Your task to perform on an android device: install app "Upside-Cash back on gas & food" Image 0: 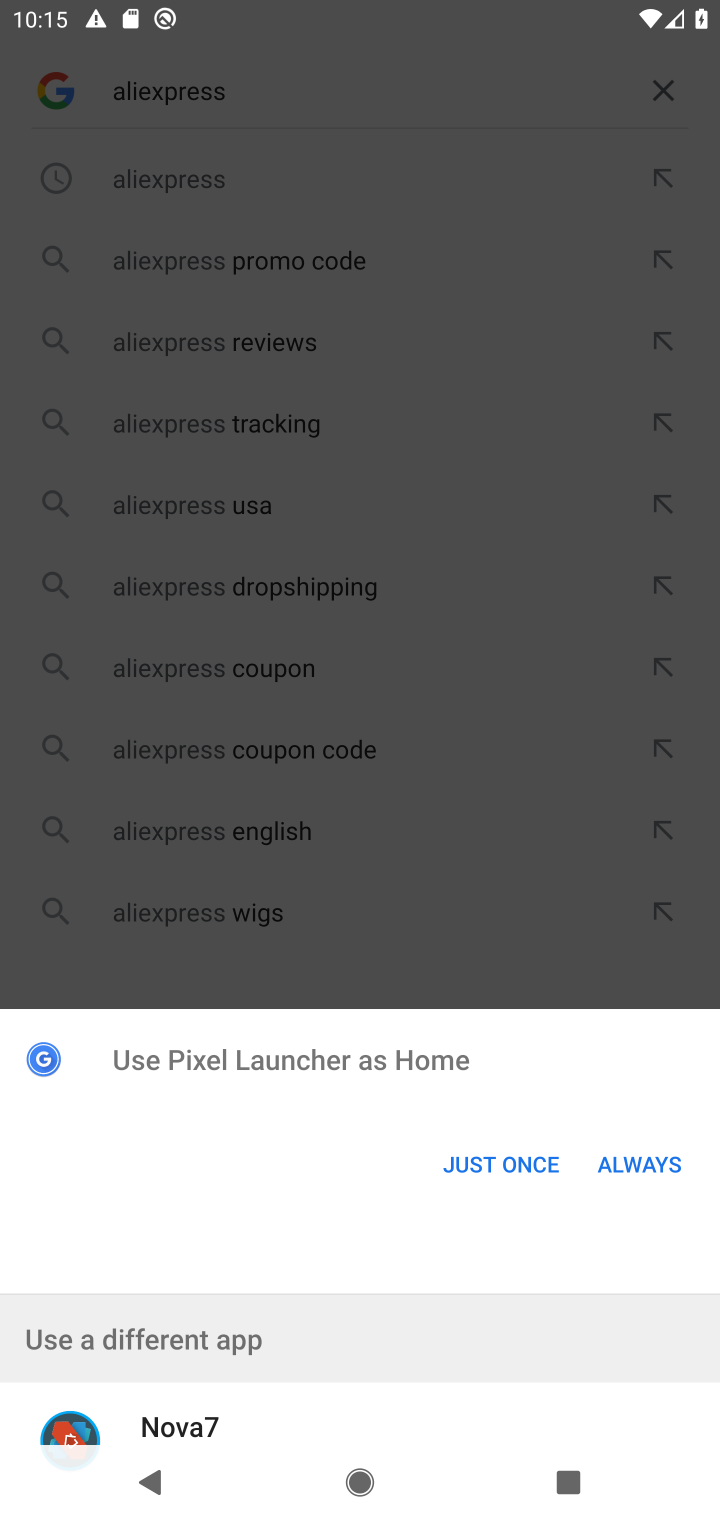
Step 0: click (476, 1180)
Your task to perform on an android device: install app "Upside-Cash back on gas & food" Image 1: 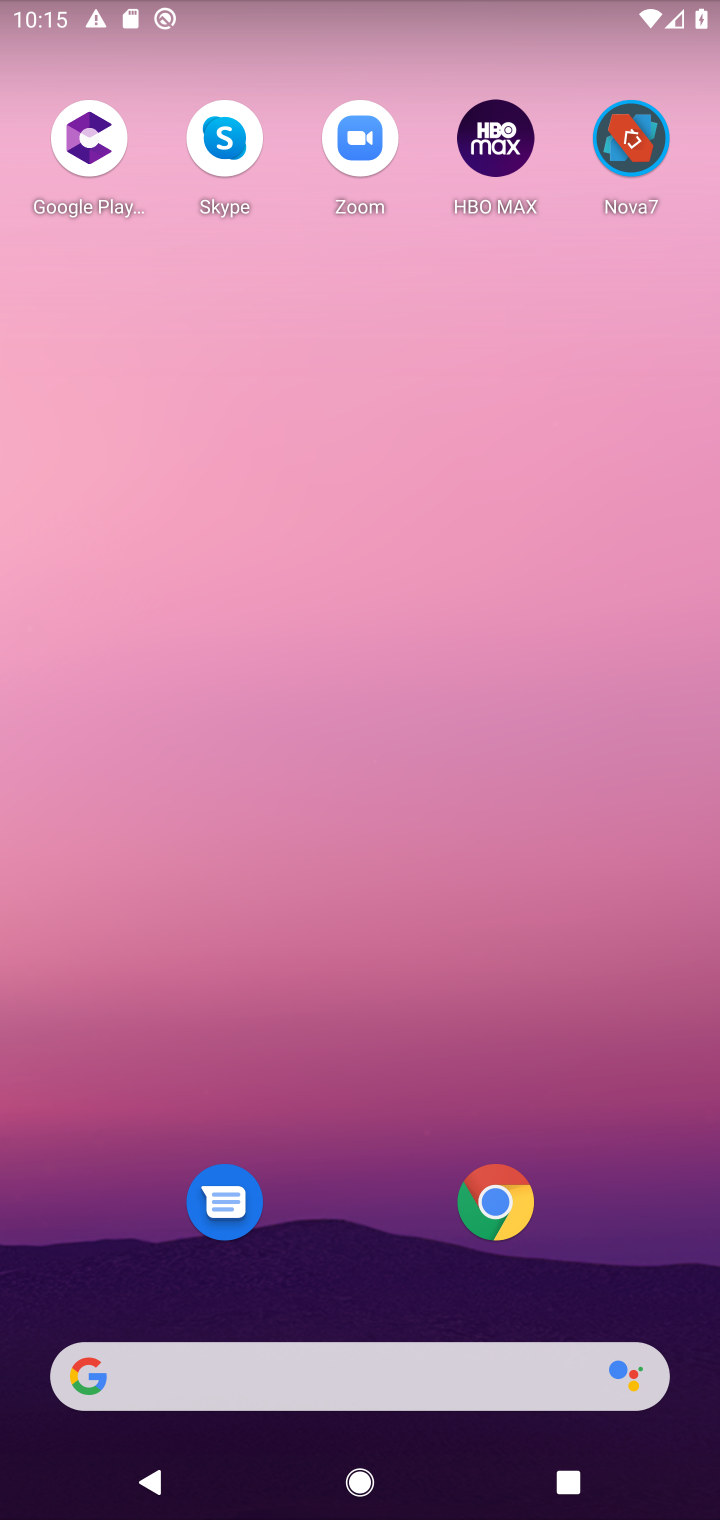
Step 1: click (427, 1392)
Your task to perform on an android device: install app "Upside-Cash back on gas & food" Image 2: 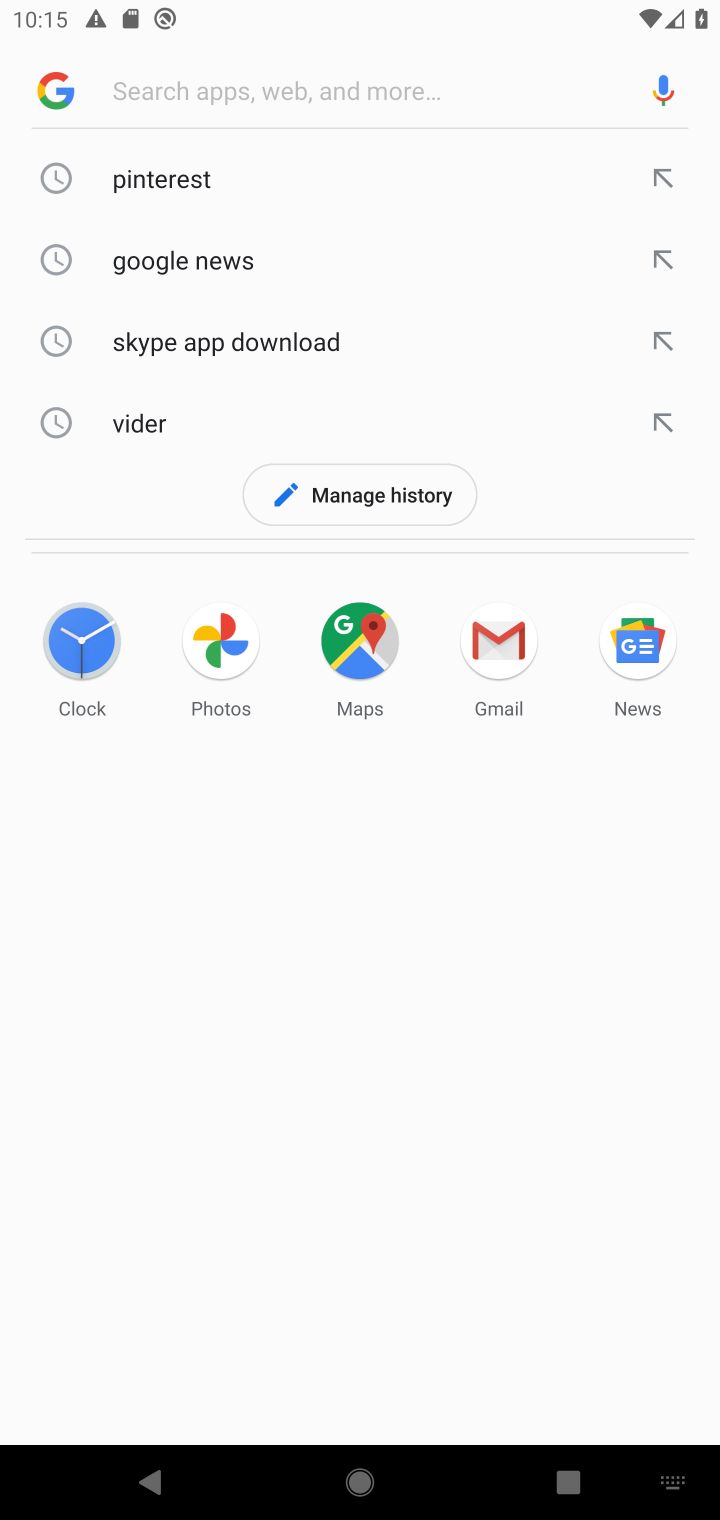
Step 2: type "upside cash"
Your task to perform on an android device: install app "Upside-Cash back on gas & food" Image 3: 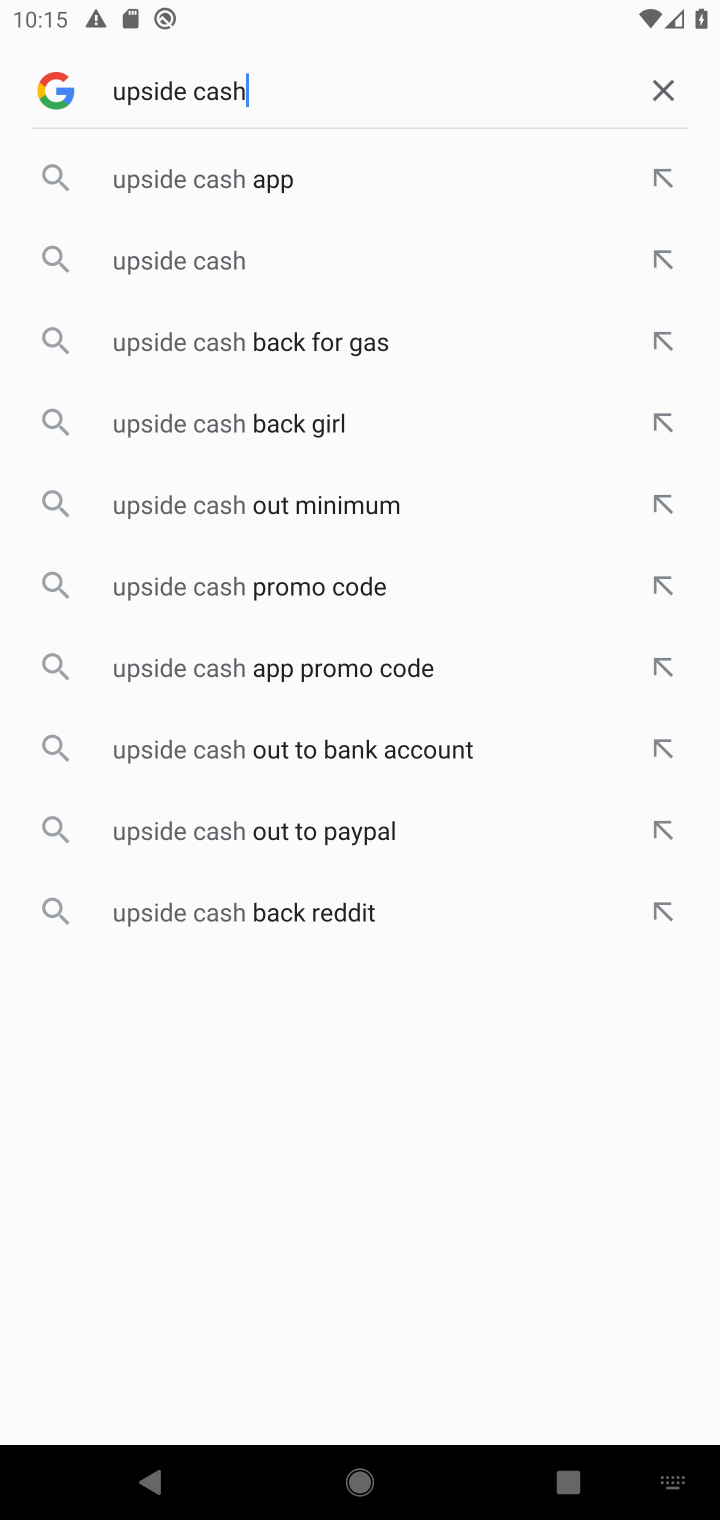
Step 3: click (257, 186)
Your task to perform on an android device: install app "Upside-Cash back on gas & food" Image 4: 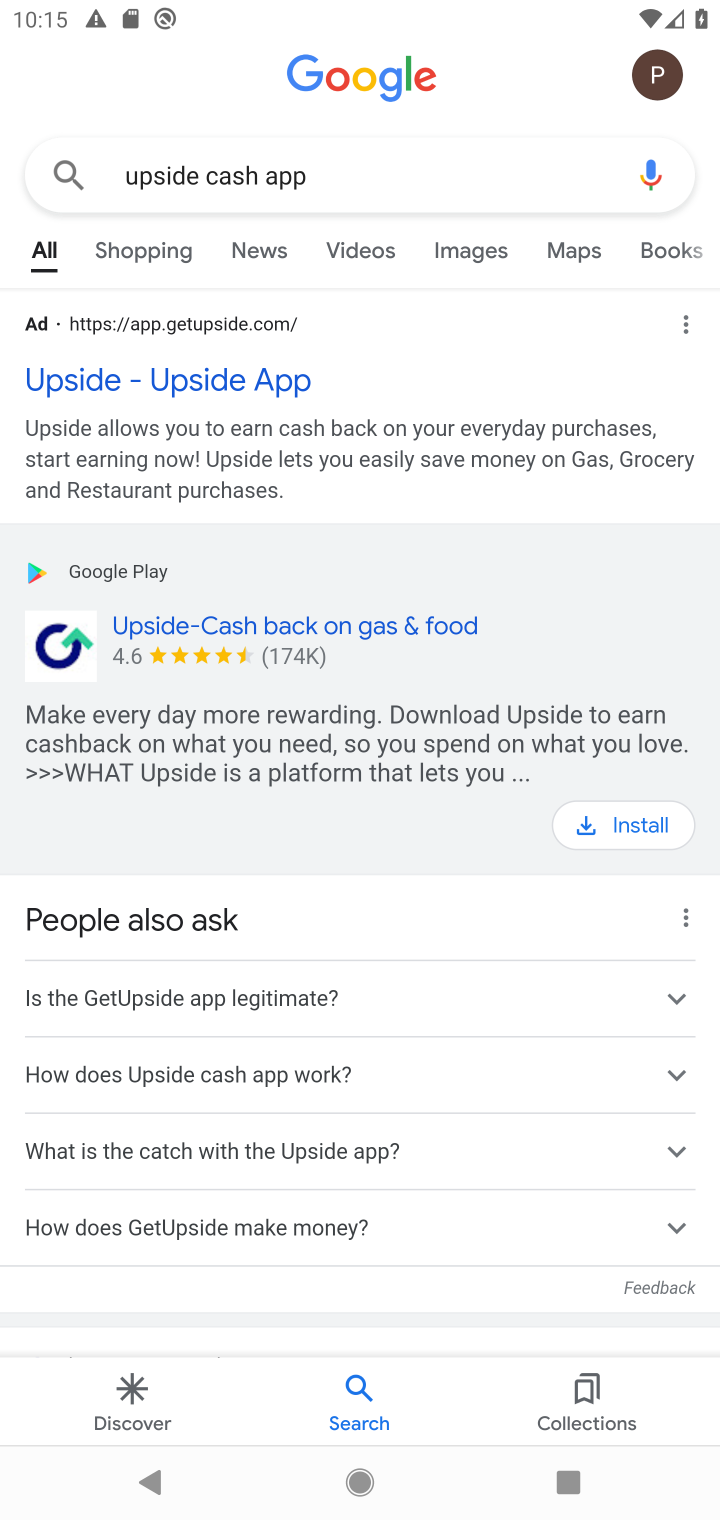
Step 4: click (643, 801)
Your task to perform on an android device: install app "Upside-Cash back on gas & food" Image 5: 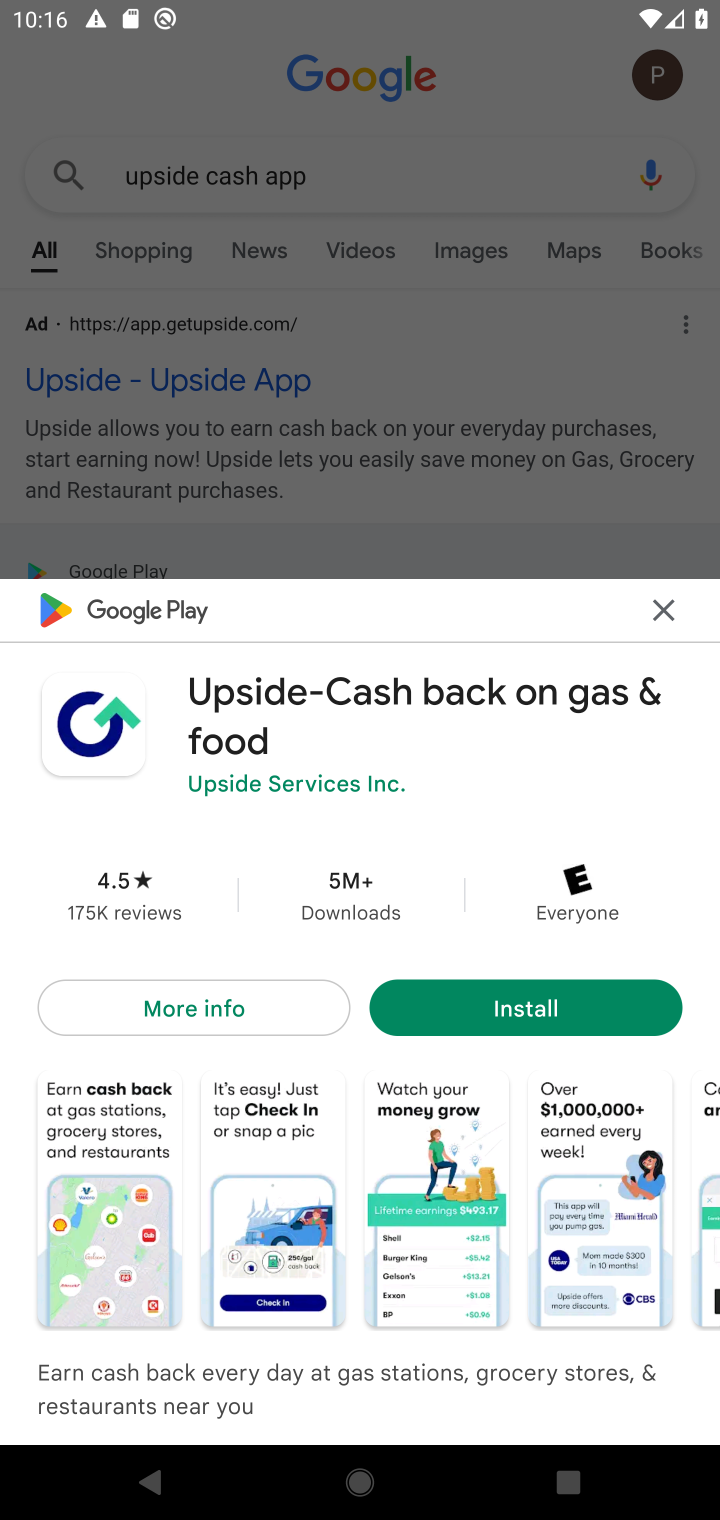
Step 5: click (508, 1015)
Your task to perform on an android device: install app "Upside-Cash back on gas & food" Image 6: 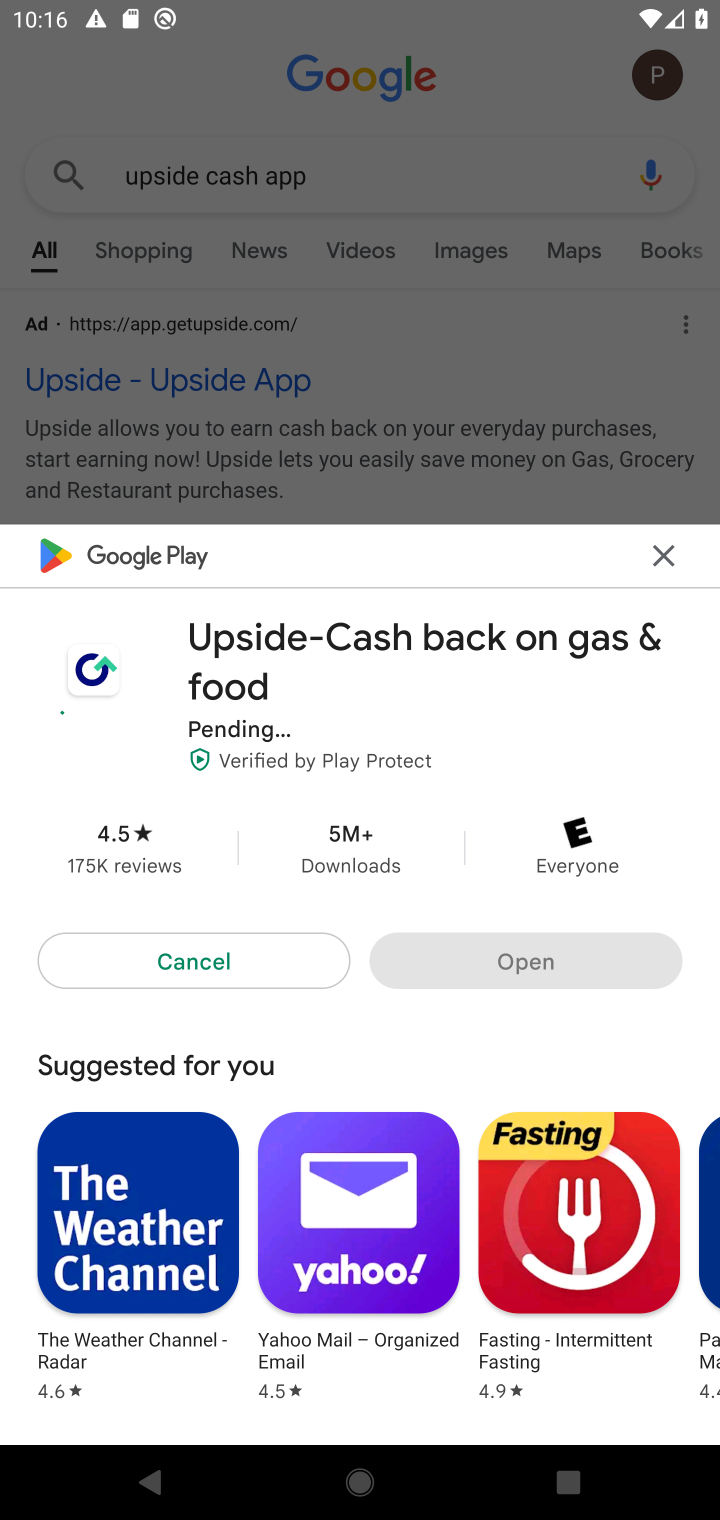
Step 6: task complete